Your task to perform on an android device: create a new album in the google photos Image 0: 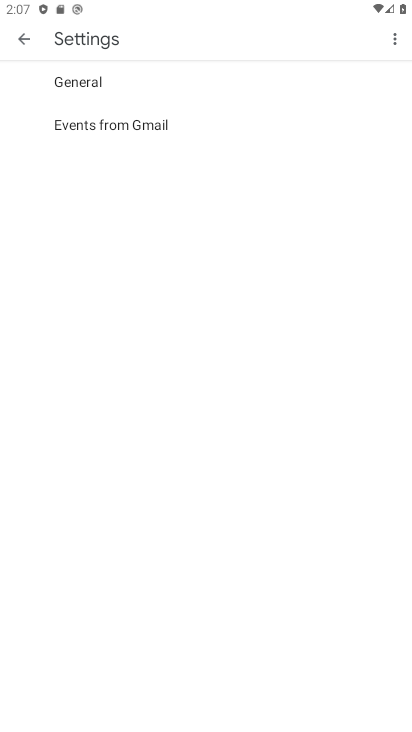
Step 0: press home button
Your task to perform on an android device: create a new album in the google photos Image 1: 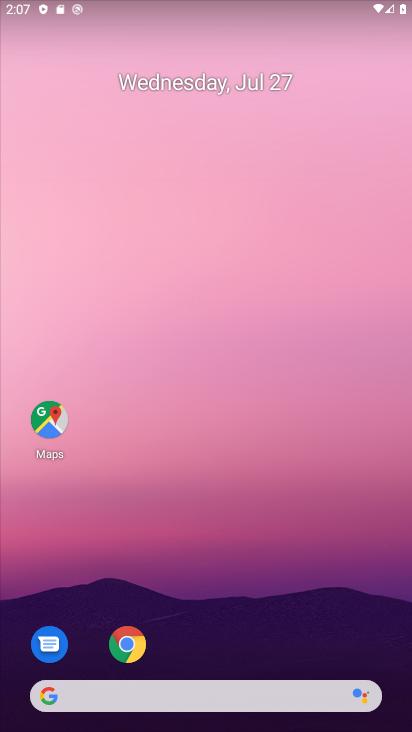
Step 1: drag from (305, 580) to (285, 155)
Your task to perform on an android device: create a new album in the google photos Image 2: 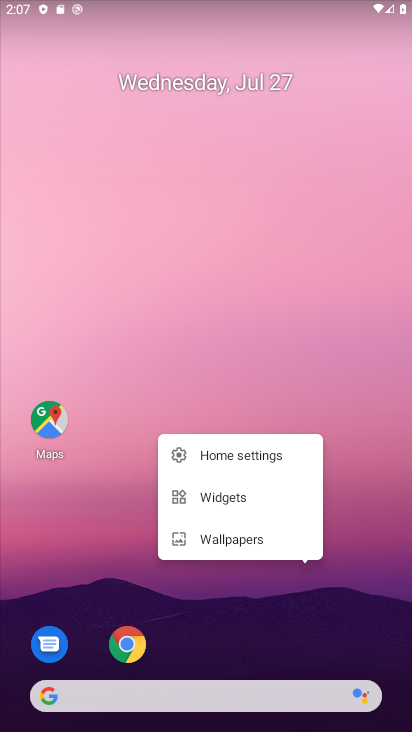
Step 2: drag from (392, 658) to (329, 196)
Your task to perform on an android device: create a new album in the google photos Image 3: 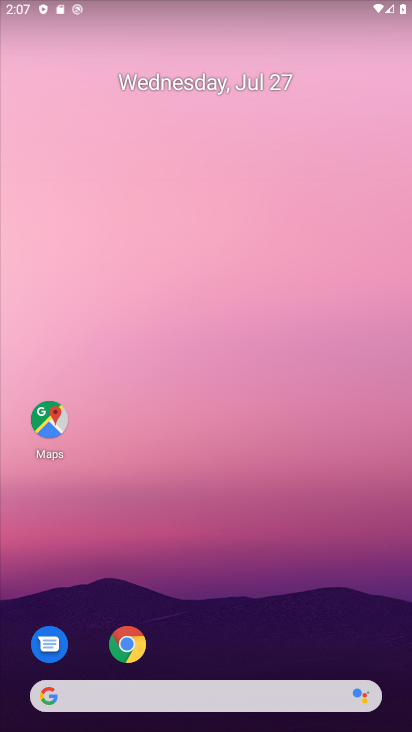
Step 3: drag from (251, 651) to (236, 134)
Your task to perform on an android device: create a new album in the google photos Image 4: 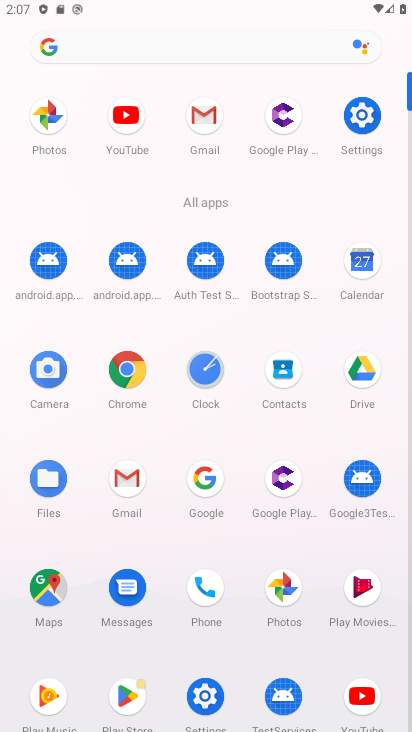
Step 4: click (44, 125)
Your task to perform on an android device: create a new album in the google photos Image 5: 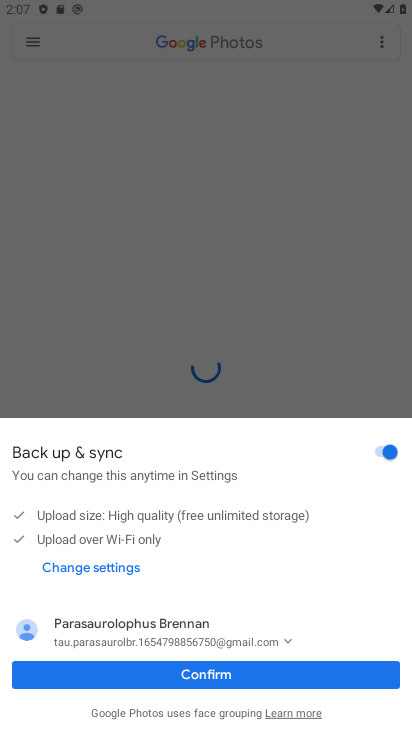
Step 5: click (179, 667)
Your task to perform on an android device: create a new album in the google photos Image 6: 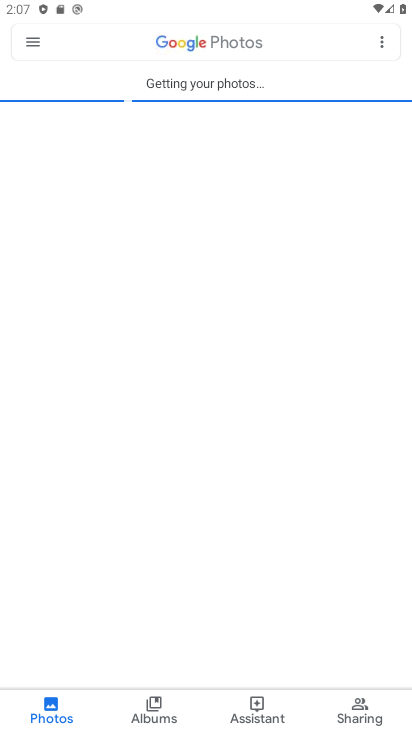
Step 6: click (281, 723)
Your task to perform on an android device: create a new album in the google photos Image 7: 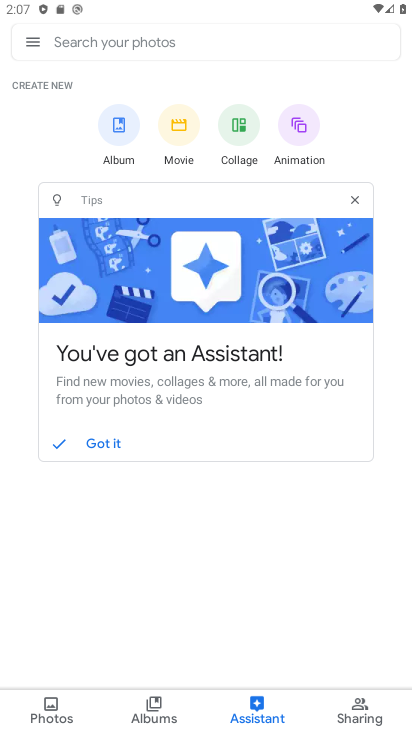
Step 7: click (131, 130)
Your task to perform on an android device: create a new album in the google photos Image 8: 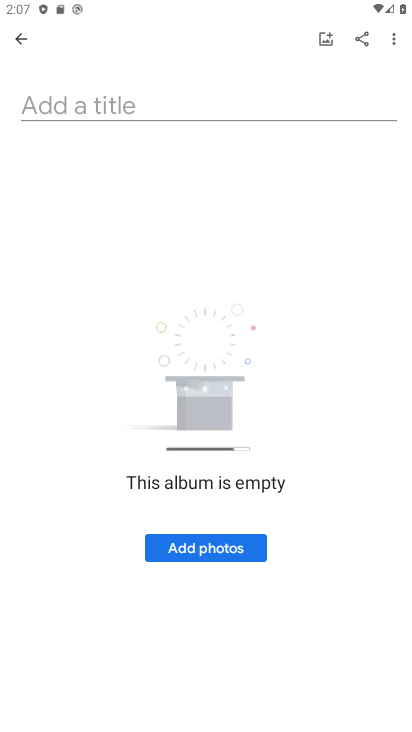
Step 8: click (142, 98)
Your task to perform on an android device: create a new album in the google photos Image 9: 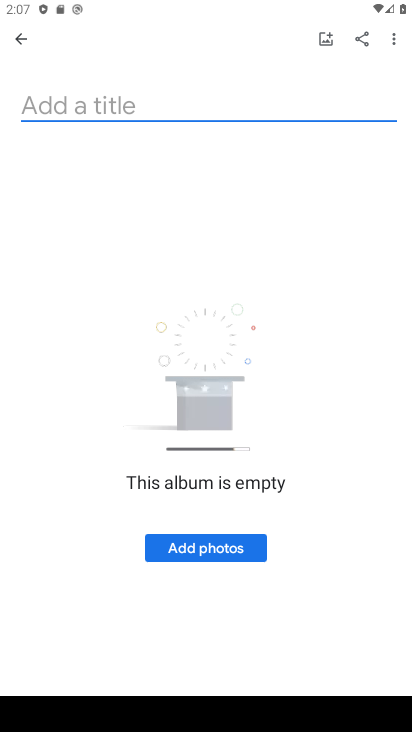
Step 9: type " n n j"
Your task to perform on an android device: create a new album in the google photos Image 10: 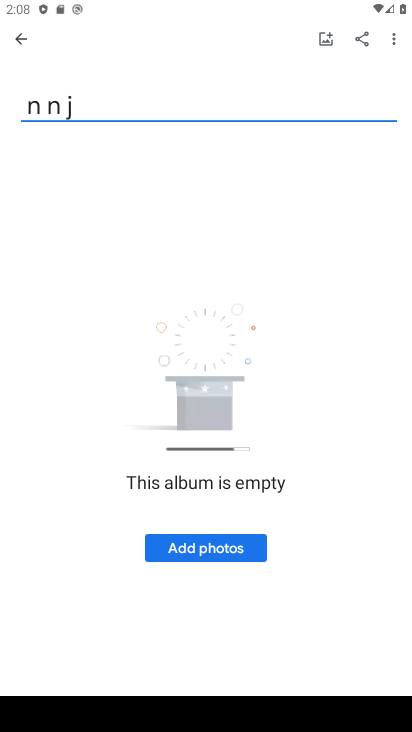
Step 10: click (237, 546)
Your task to perform on an android device: create a new album in the google photos Image 11: 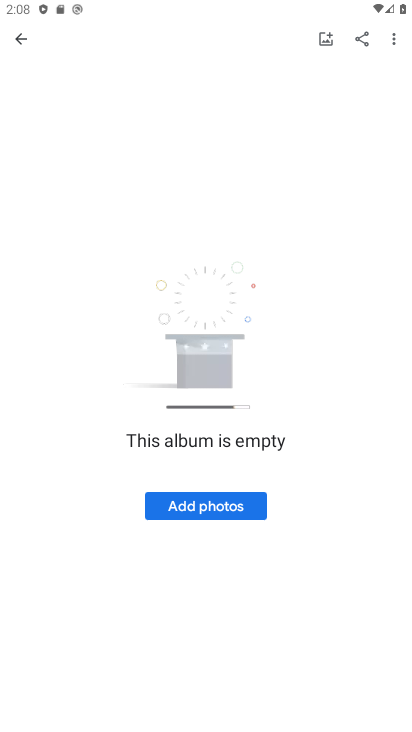
Step 11: click (243, 515)
Your task to perform on an android device: create a new album in the google photos Image 12: 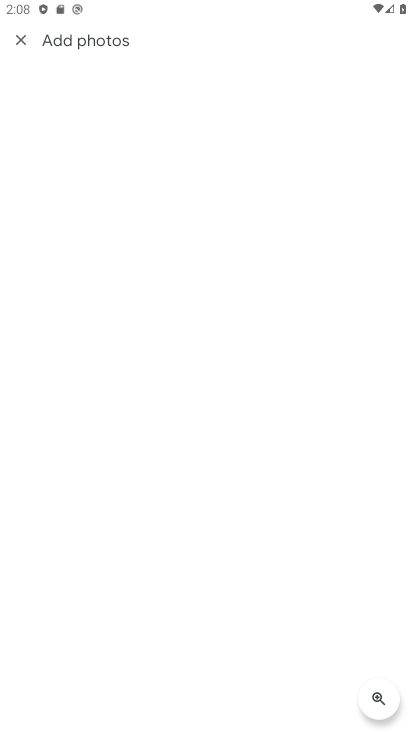
Step 12: task complete